Your task to perform on an android device: Open the web browser Image 0: 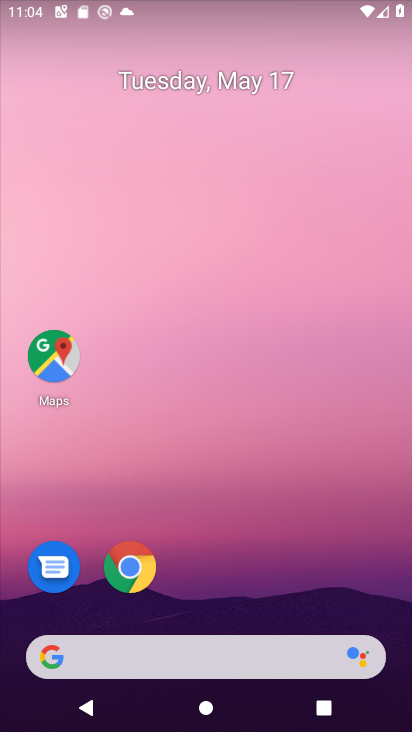
Step 0: click (136, 566)
Your task to perform on an android device: Open the web browser Image 1: 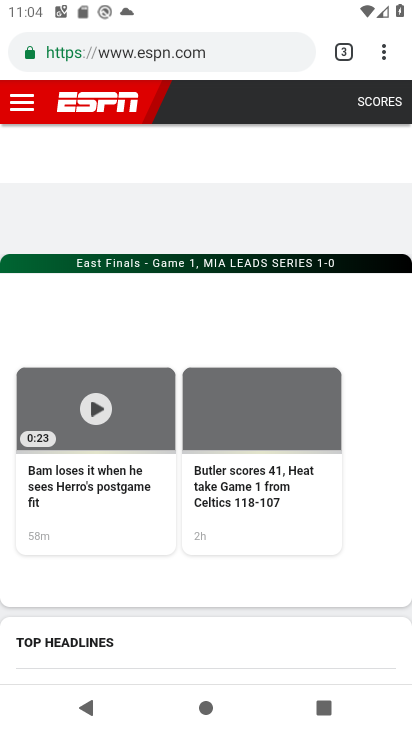
Step 1: task complete